Your task to perform on an android device: Check the news Image 0: 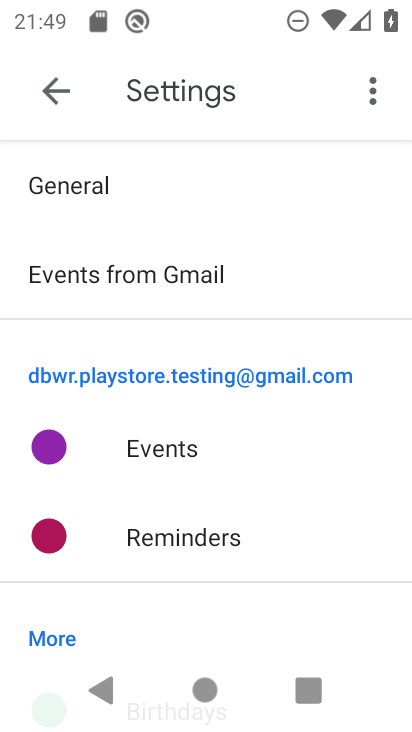
Step 0: press home button
Your task to perform on an android device: Check the news Image 1: 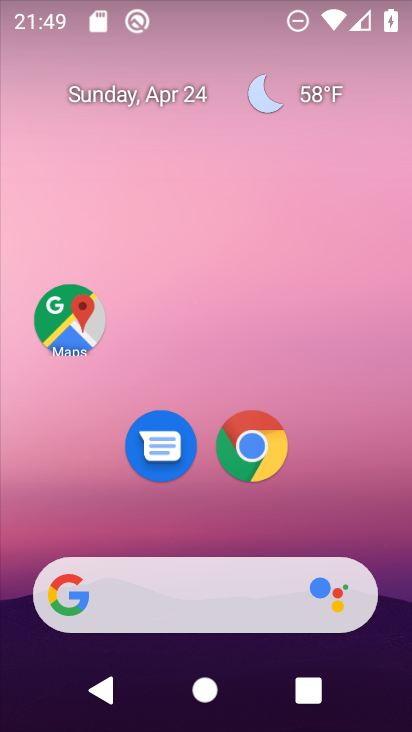
Step 1: task complete